Your task to perform on an android device: What is the news today? Image 0: 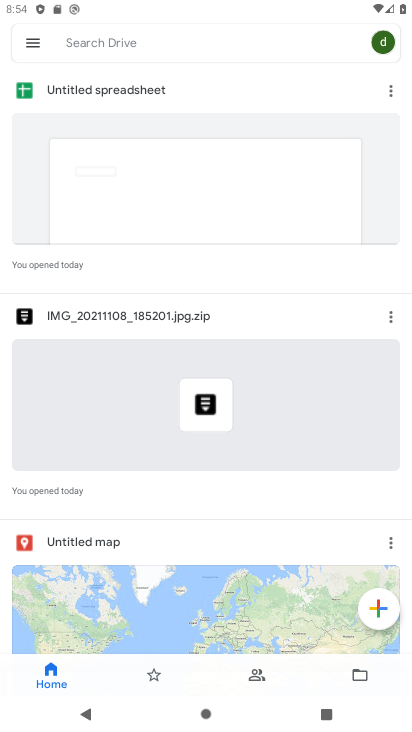
Step 0: press home button
Your task to perform on an android device: What is the news today? Image 1: 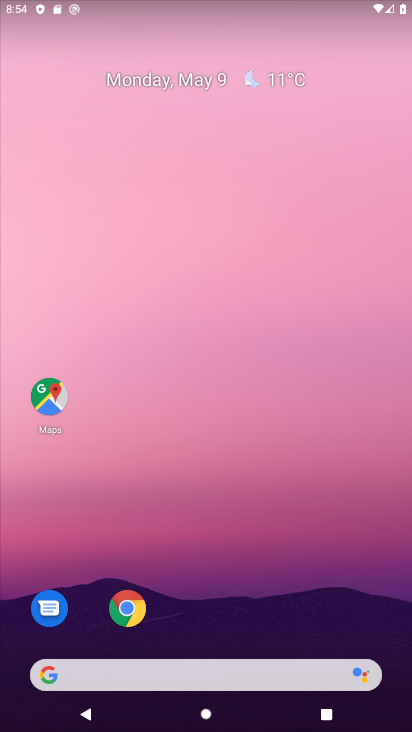
Step 1: click (123, 602)
Your task to perform on an android device: What is the news today? Image 2: 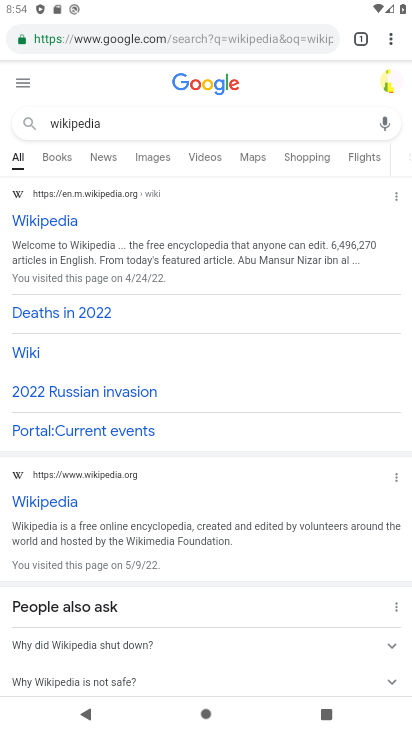
Step 2: click (174, 33)
Your task to perform on an android device: What is the news today? Image 3: 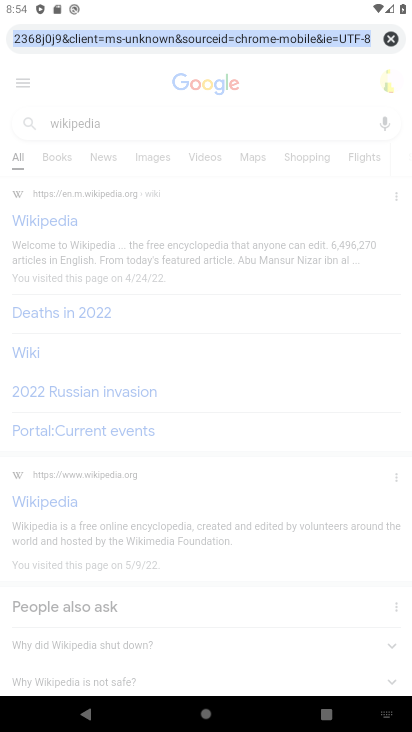
Step 3: type "What is the news today?"
Your task to perform on an android device: What is the news today? Image 4: 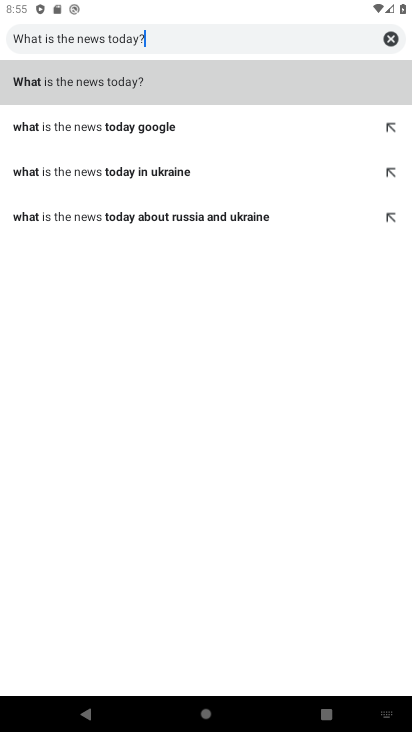
Step 4: click (147, 84)
Your task to perform on an android device: What is the news today? Image 5: 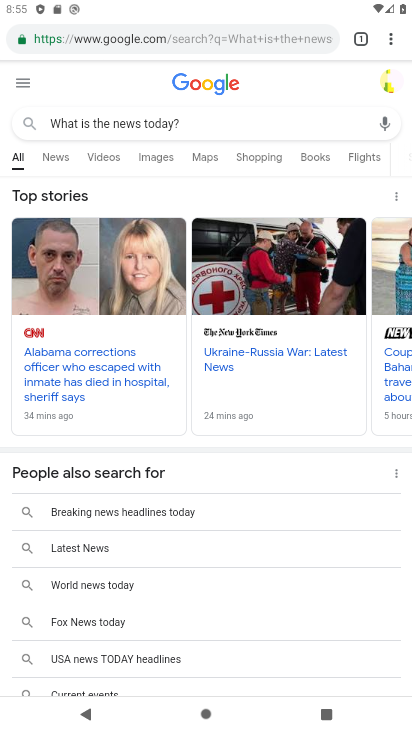
Step 5: task complete